Your task to perform on an android device: open device folders in google photos Image 0: 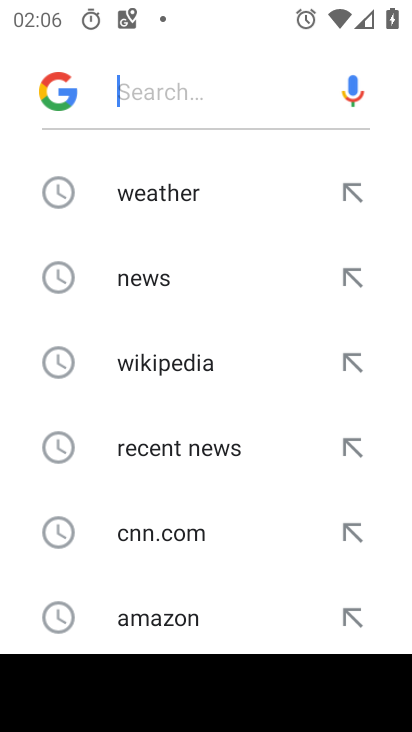
Step 0: press home button
Your task to perform on an android device: open device folders in google photos Image 1: 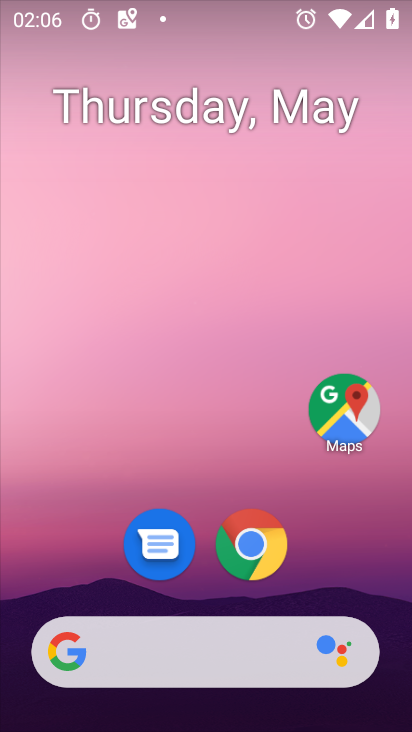
Step 1: drag from (363, 553) to (379, 175)
Your task to perform on an android device: open device folders in google photos Image 2: 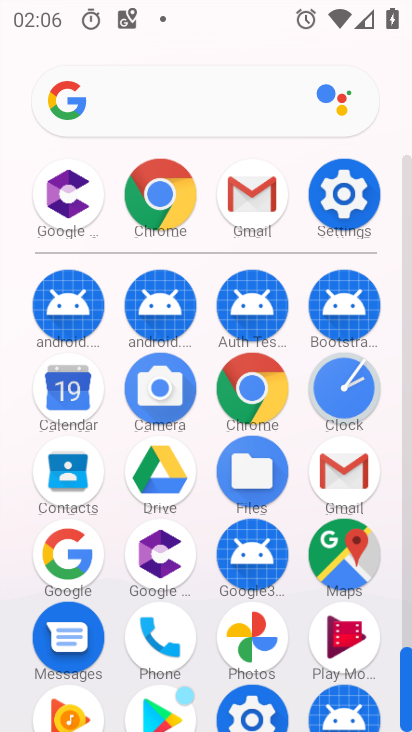
Step 2: drag from (388, 575) to (382, 354)
Your task to perform on an android device: open device folders in google photos Image 3: 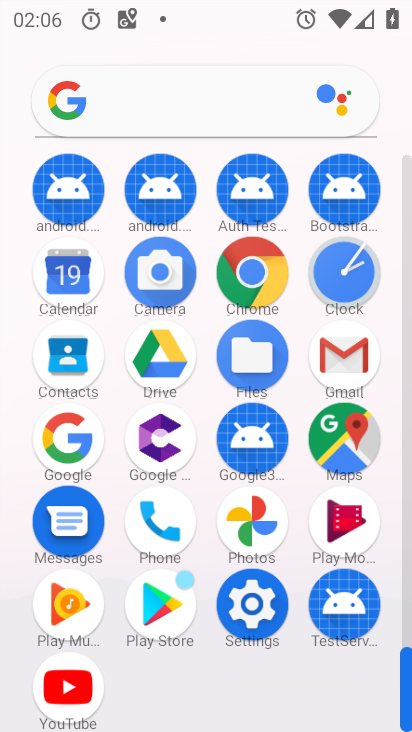
Step 3: click (265, 518)
Your task to perform on an android device: open device folders in google photos Image 4: 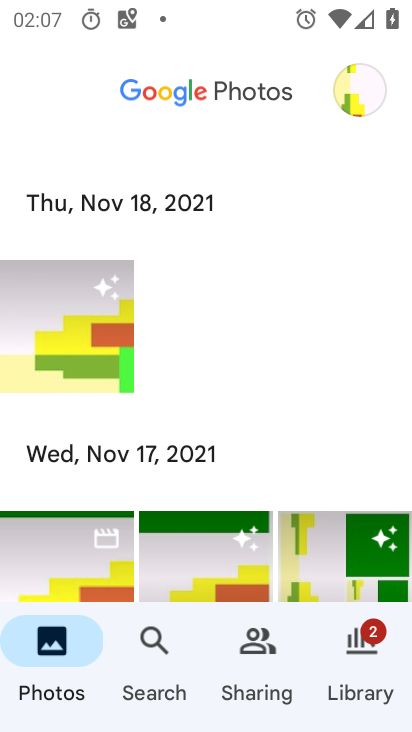
Step 4: click (357, 94)
Your task to perform on an android device: open device folders in google photos Image 5: 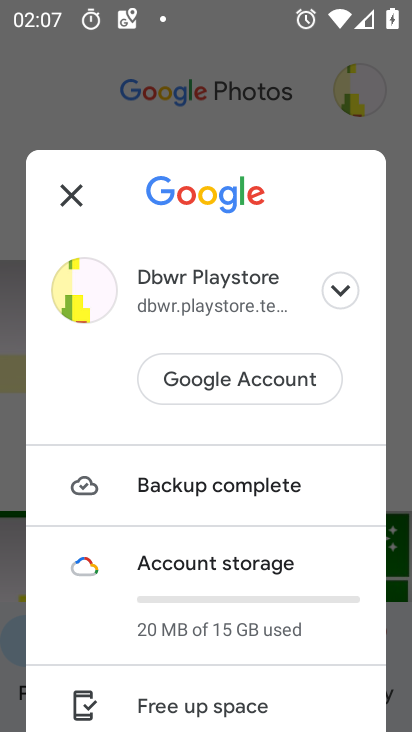
Step 5: task complete